Your task to perform on an android device: Is it going to rain tomorrow? Image 0: 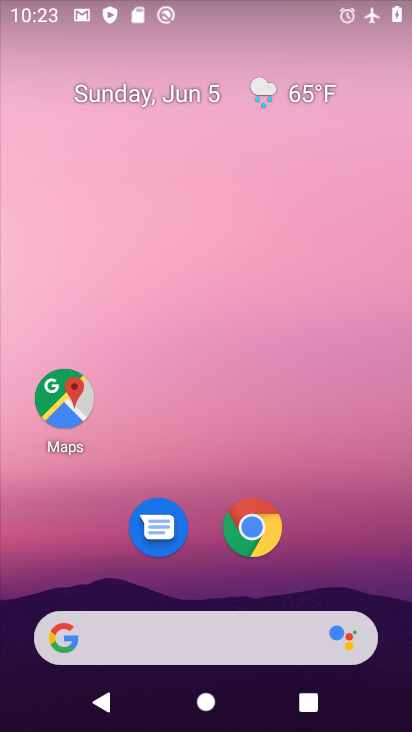
Step 0: press home button
Your task to perform on an android device: Is it going to rain tomorrow? Image 1: 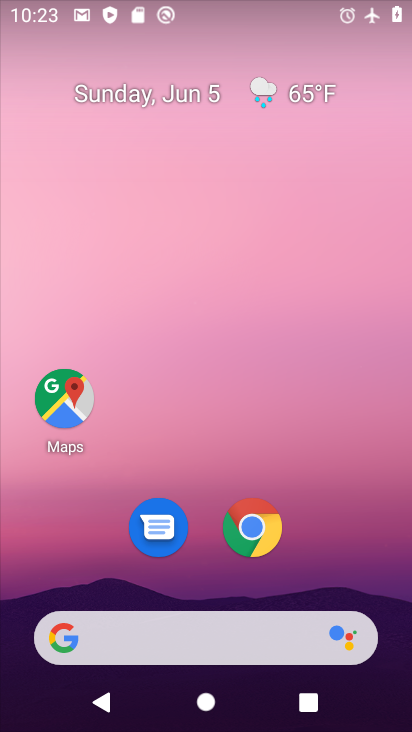
Step 1: click (184, 626)
Your task to perform on an android device: Is it going to rain tomorrow? Image 2: 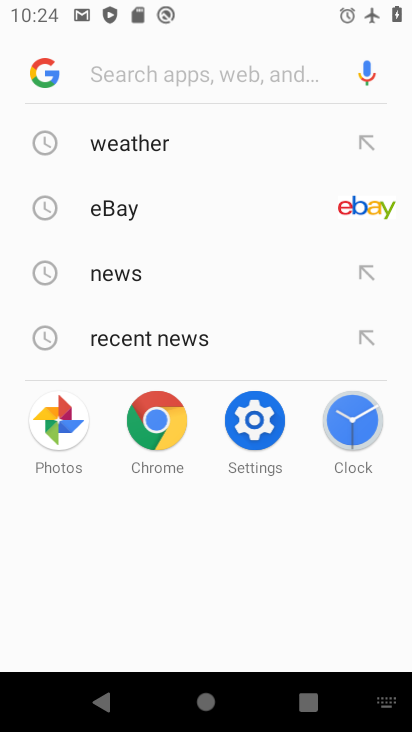
Step 2: click (123, 136)
Your task to perform on an android device: Is it going to rain tomorrow? Image 3: 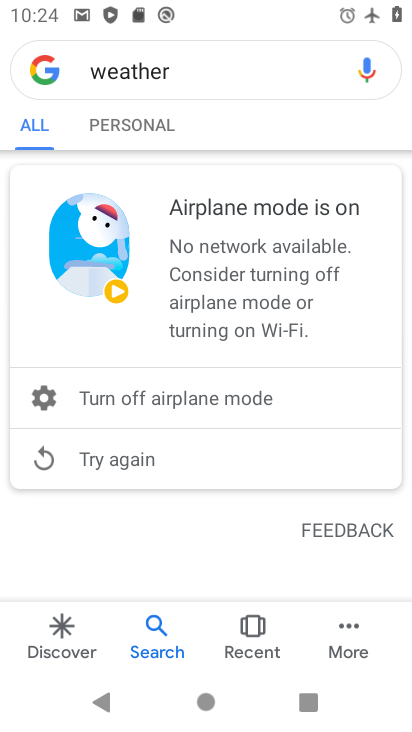
Step 3: drag from (373, 33) to (340, 627)
Your task to perform on an android device: Is it going to rain tomorrow? Image 4: 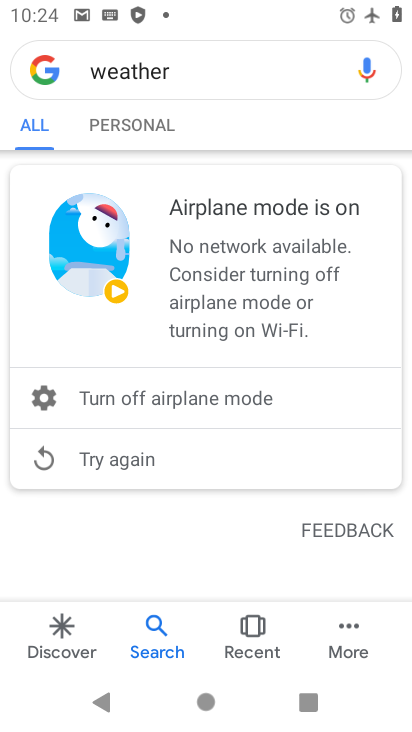
Step 4: drag from (283, 1) to (309, 650)
Your task to perform on an android device: Is it going to rain tomorrow? Image 5: 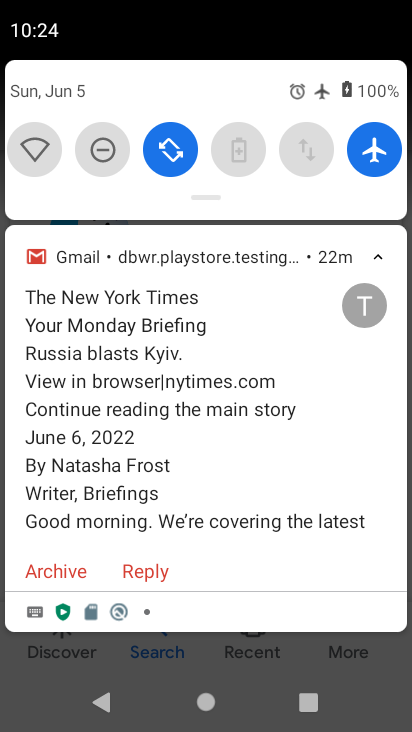
Step 5: click (373, 151)
Your task to perform on an android device: Is it going to rain tomorrow? Image 6: 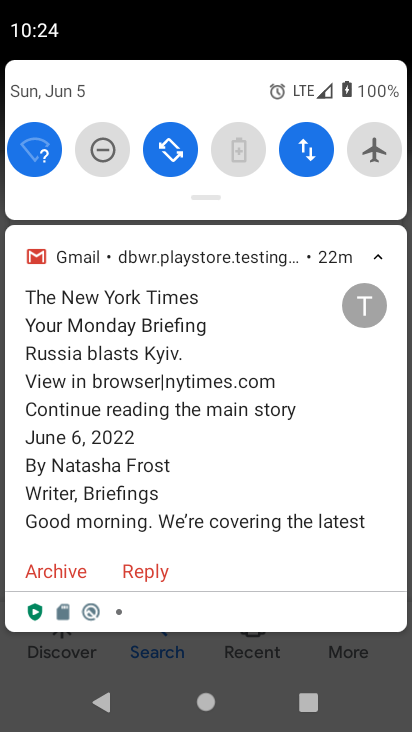
Step 6: task complete